Your task to perform on an android device: Go to notification settings Image 0: 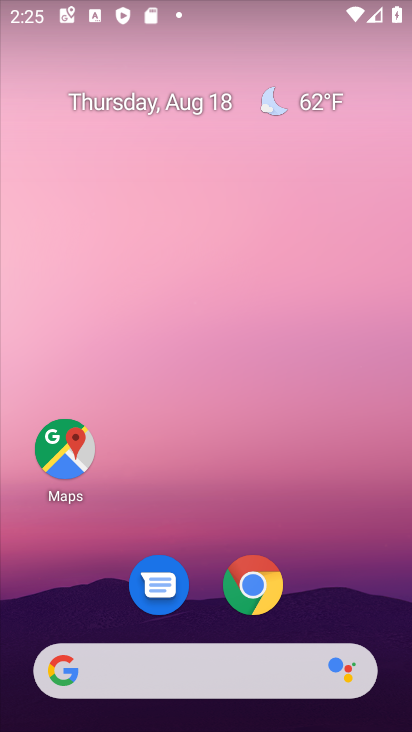
Step 0: drag from (290, 533) to (322, 0)
Your task to perform on an android device: Go to notification settings Image 1: 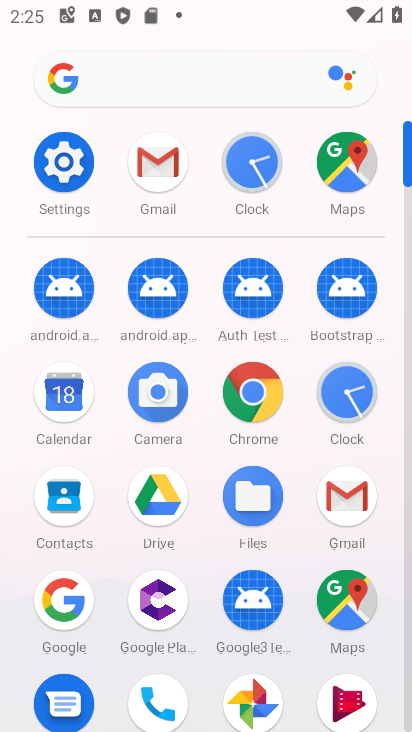
Step 1: click (68, 163)
Your task to perform on an android device: Go to notification settings Image 2: 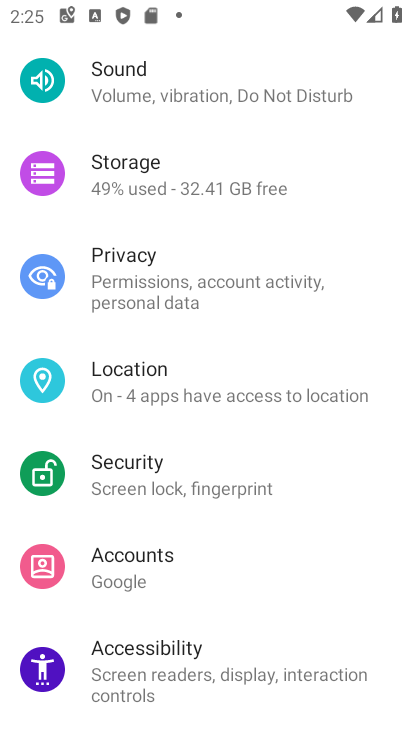
Step 2: drag from (216, 285) to (232, 606)
Your task to perform on an android device: Go to notification settings Image 3: 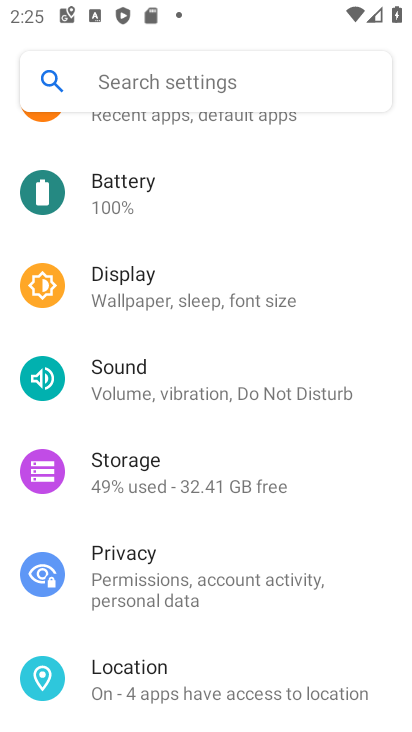
Step 3: drag from (250, 361) to (240, 698)
Your task to perform on an android device: Go to notification settings Image 4: 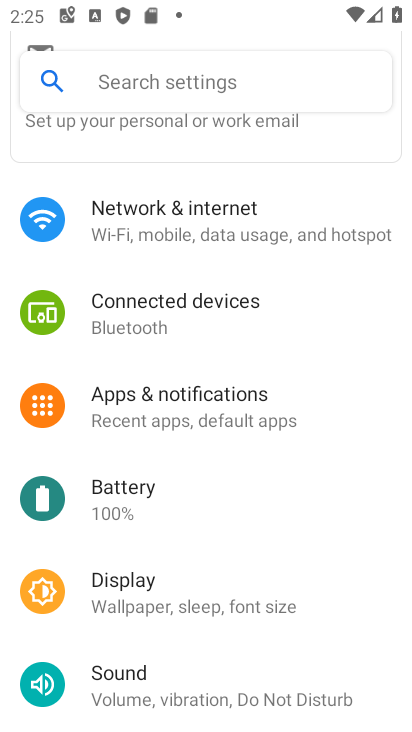
Step 4: click (211, 386)
Your task to perform on an android device: Go to notification settings Image 5: 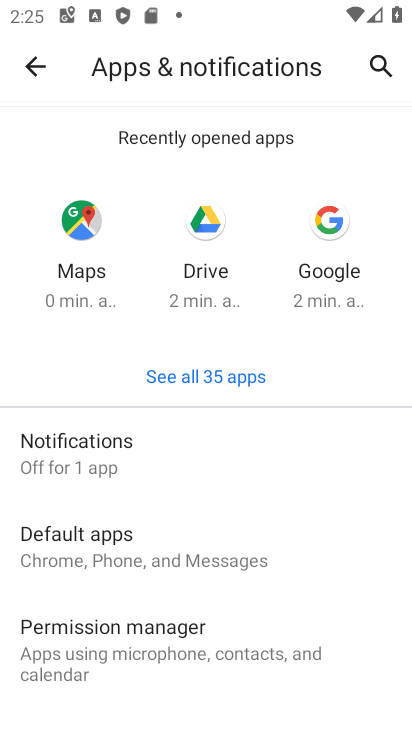
Step 5: click (142, 454)
Your task to perform on an android device: Go to notification settings Image 6: 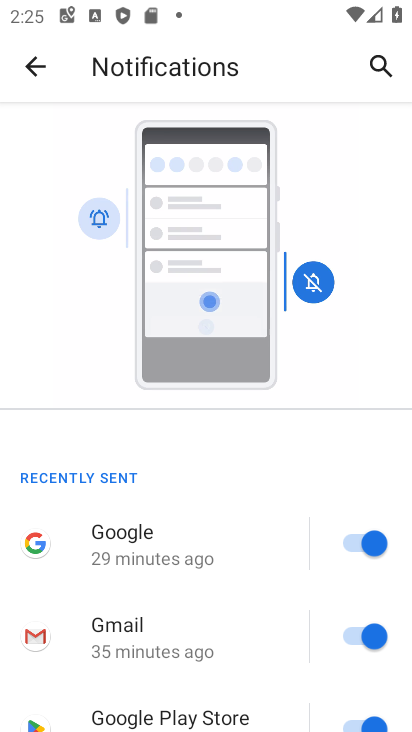
Step 6: task complete